Your task to perform on an android device: visit the assistant section in the google photos Image 0: 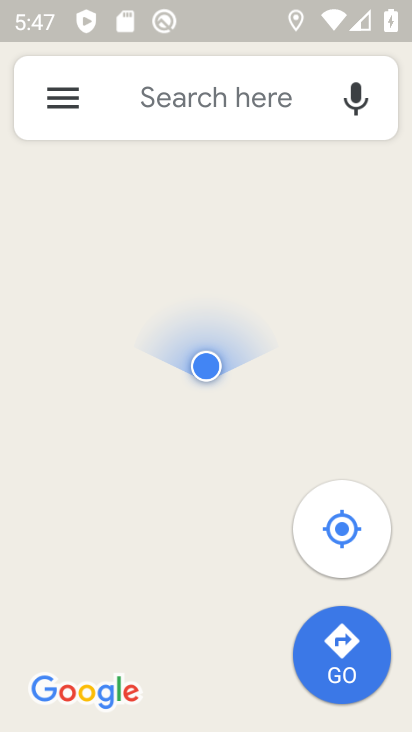
Step 0: press home button
Your task to perform on an android device: visit the assistant section in the google photos Image 1: 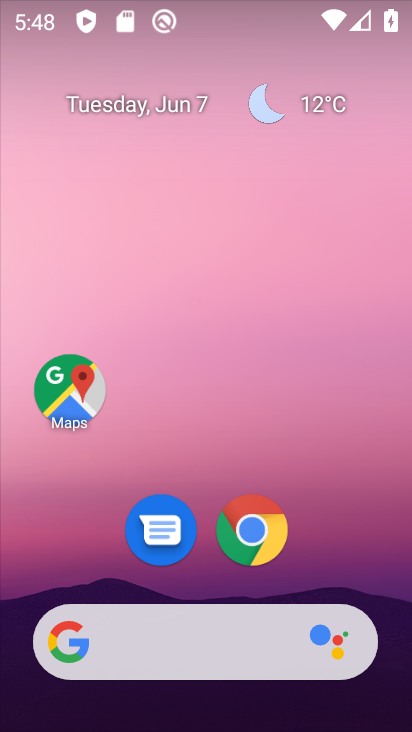
Step 1: drag from (191, 572) to (203, 163)
Your task to perform on an android device: visit the assistant section in the google photos Image 2: 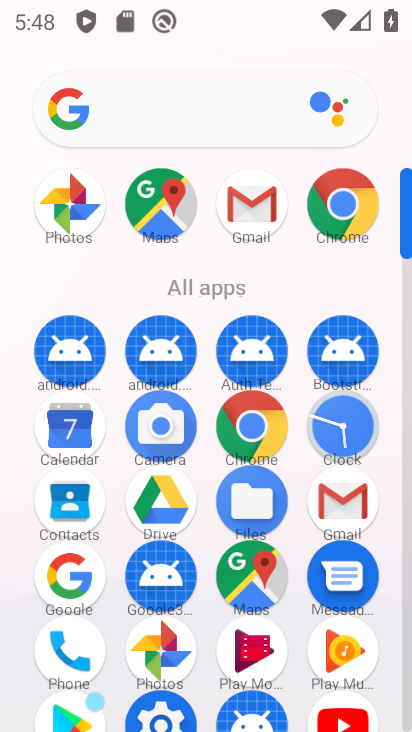
Step 2: click (161, 648)
Your task to perform on an android device: visit the assistant section in the google photos Image 3: 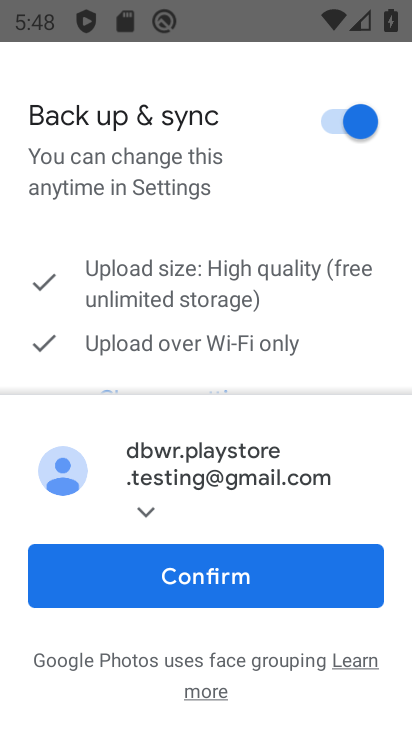
Step 3: click (196, 600)
Your task to perform on an android device: visit the assistant section in the google photos Image 4: 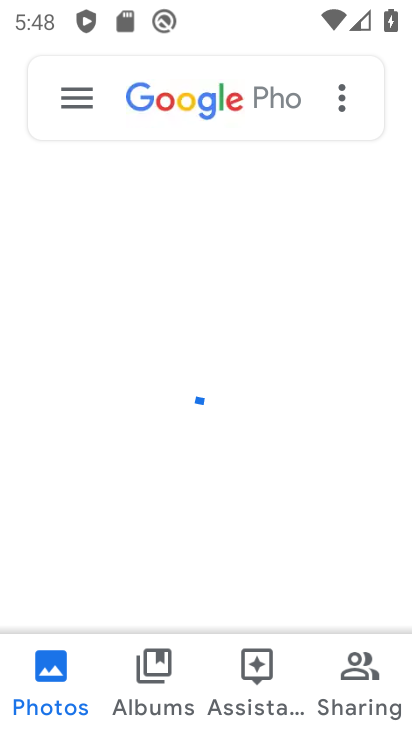
Step 4: click (245, 705)
Your task to perform on an android device: visit the assistant section in the google photos Image 5: 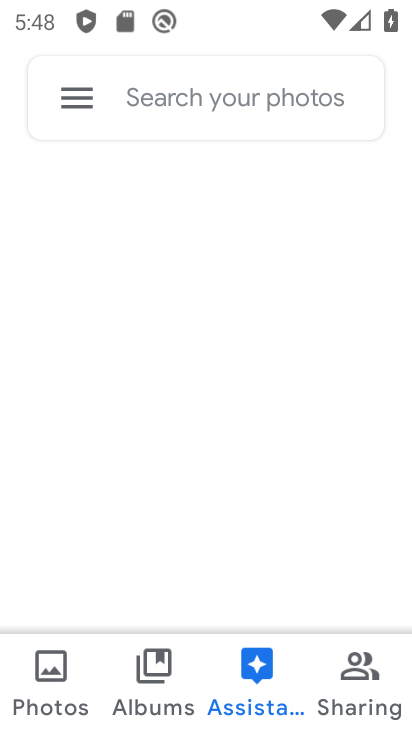
Step 5: task complete